Your task to perform on an android device: Search for Mexican restaurants on Maps Image 0: 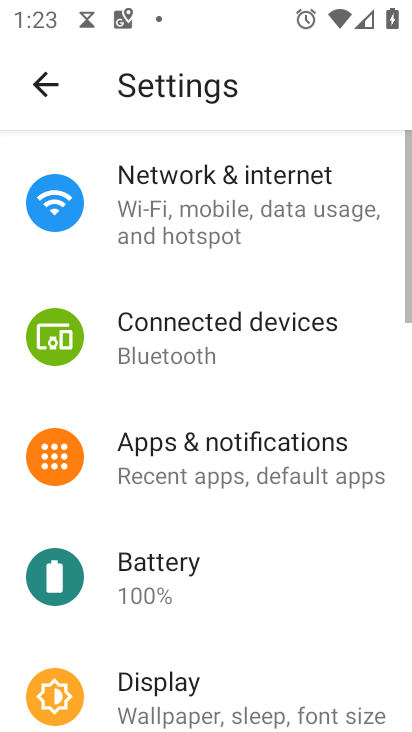
Step 0: press home button
Your task to perform on an android device: Search for Mexican restaurants on Maps Image 1: 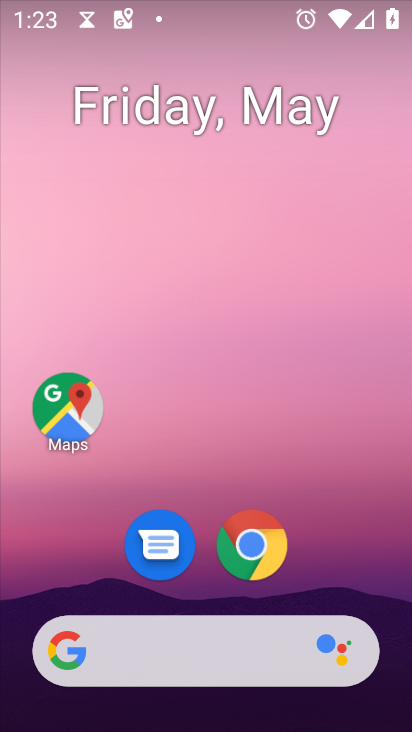
Step 1: click (69, 424)
Your task to perform on an android device: Search for Mexican restaurants on Maps Image 2: 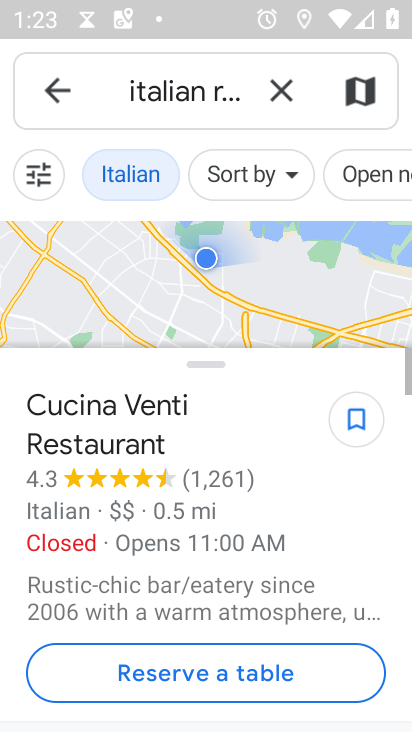
Step 2: click (288, 83)
Your task to perform on an android device: Search for Mexican restaurants on Maps Image 3: 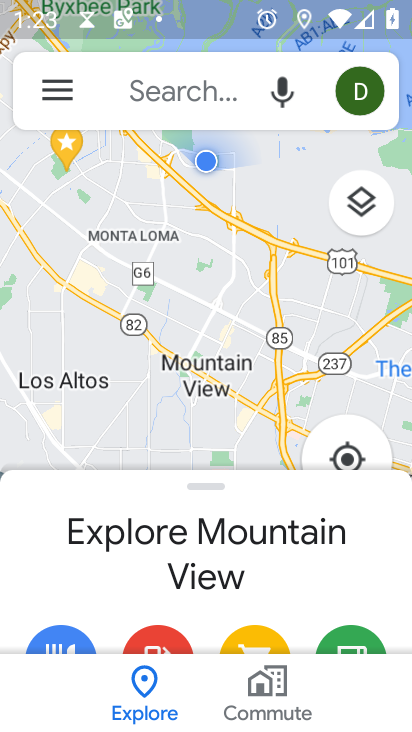
Step 3: click (164, 90)
Your task to perform on an android device: Search for Mexican restaurants on Maps Image 4: 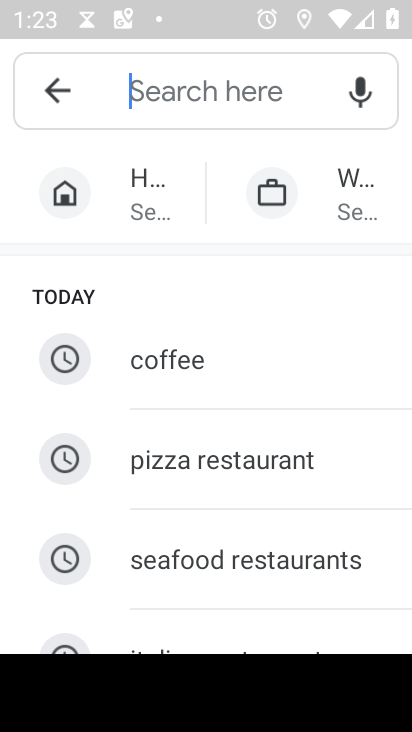
Step 4: drag from (313, 598) to (325, 282)
Your task to perform on an android device: Search for Mexican restaurants on Maps Image 5: 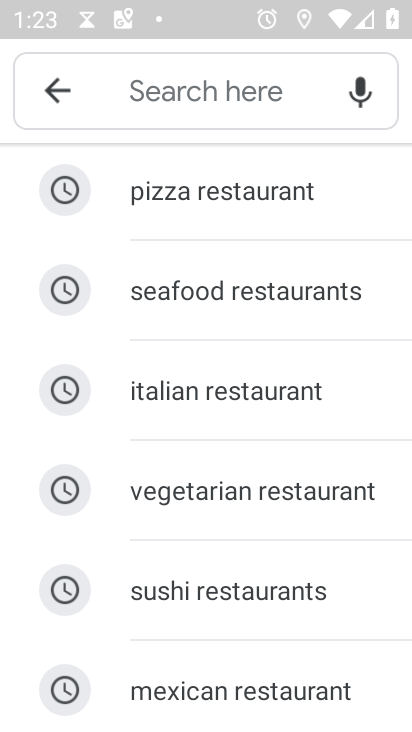
Step 5: click (253, 692)
Your task to perform on an android device: Search for Mexican restaurants on Maps Image 6: 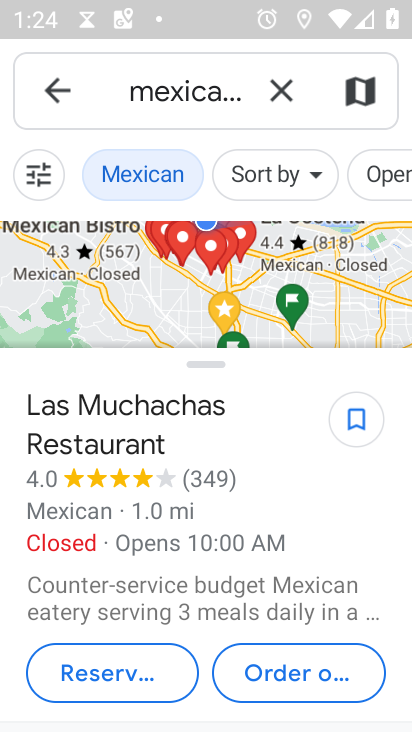
Step 6: task complete